Your task to perform on an android device: Go to CNN.com Image 0: 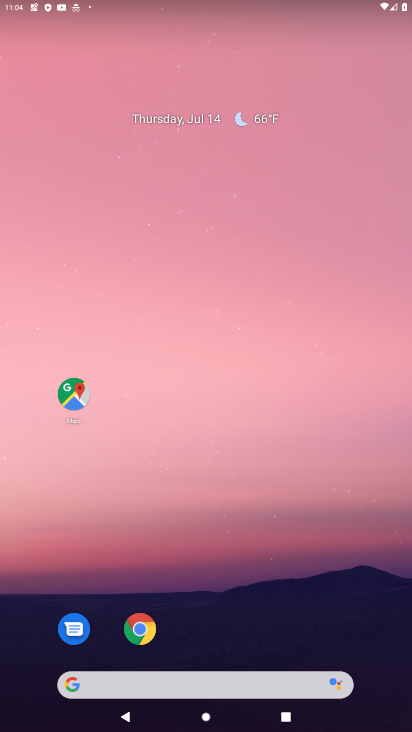
Step 0: press home button
Your task to perform on an android device: Go to CNN.com Image 1: 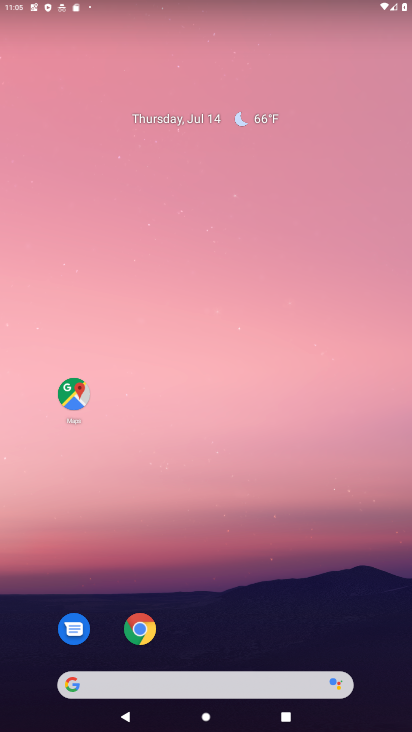
Step 1: click (74, 681)
Your task to perform on an android device: Go to CNN.com Image 2: 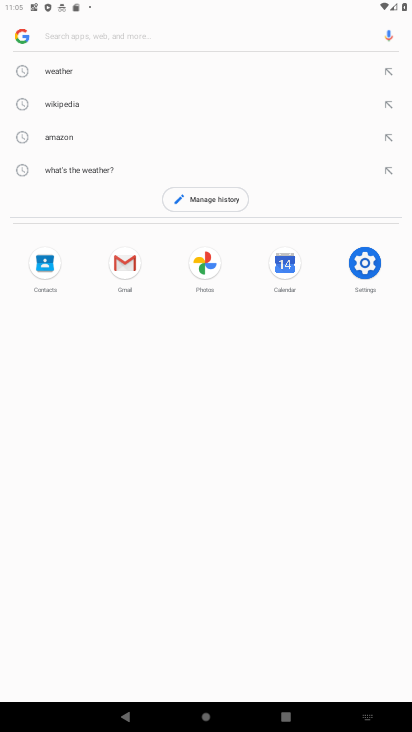
Step 2: type "CNN.com"
Your task to perform on an android device: Go to CNN.com Image 3: 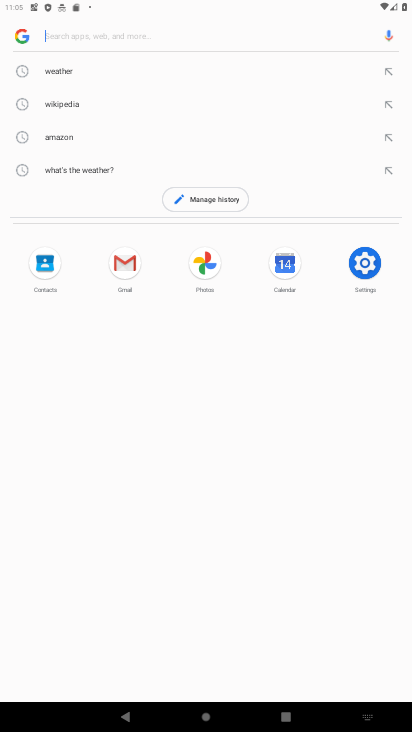
Step 3: click (89, 40)
Your task to perform on an android device: Go to CNN.com Image 4: 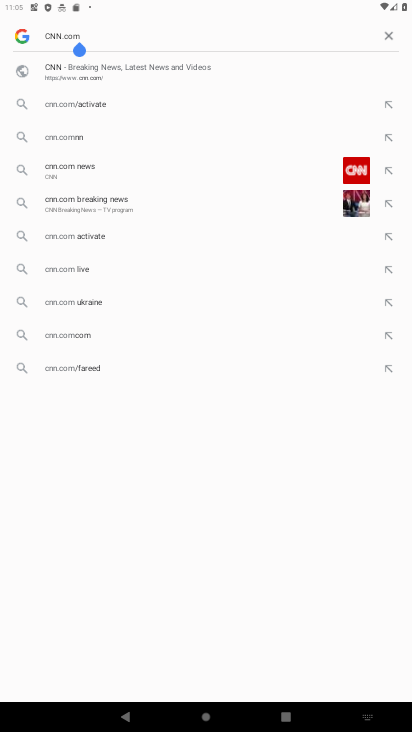
Step 4: press enter
Your task to perform on an android device: Go to CNN.com Image 5: 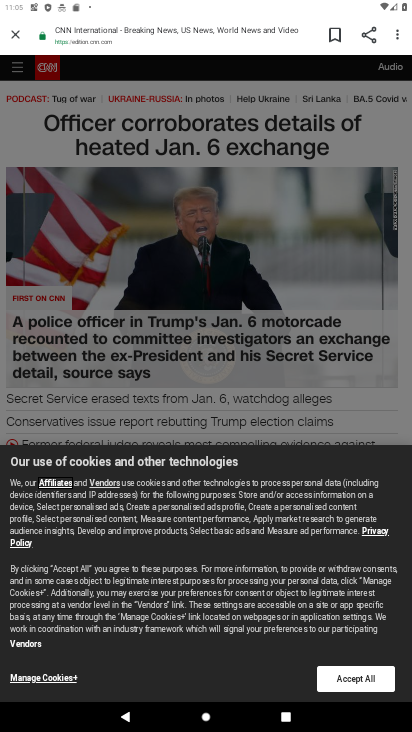
Step 5: click (365, 679)
Your task to perform on an android device: Go to CNN.com Image 6: 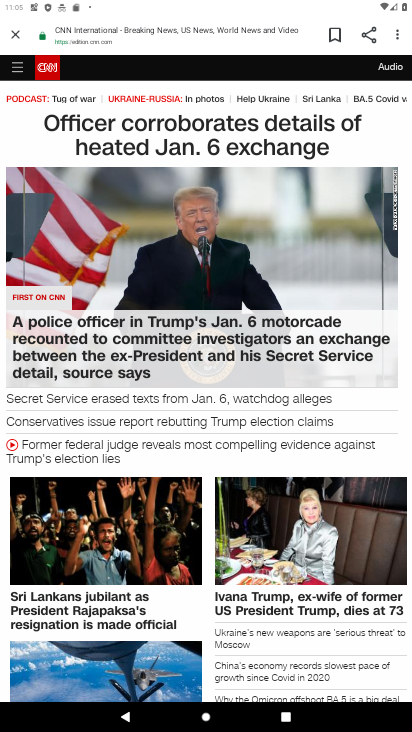
Step 6: task complete